Your task to perform on an android device: Check the weather Image 0: 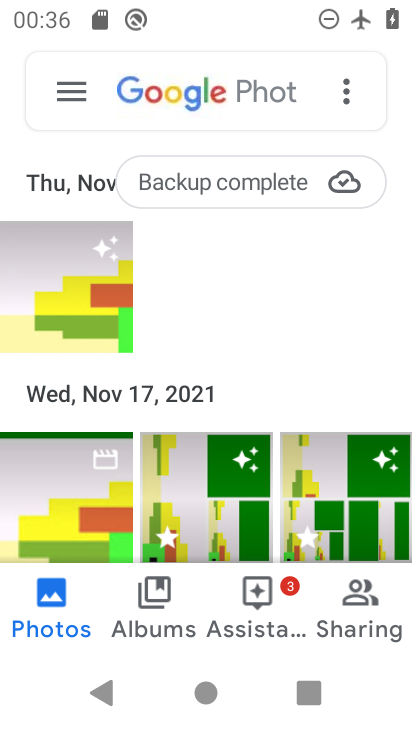
Step 0: press home button
Your task to perform on an android device: Check the weather Image 1: 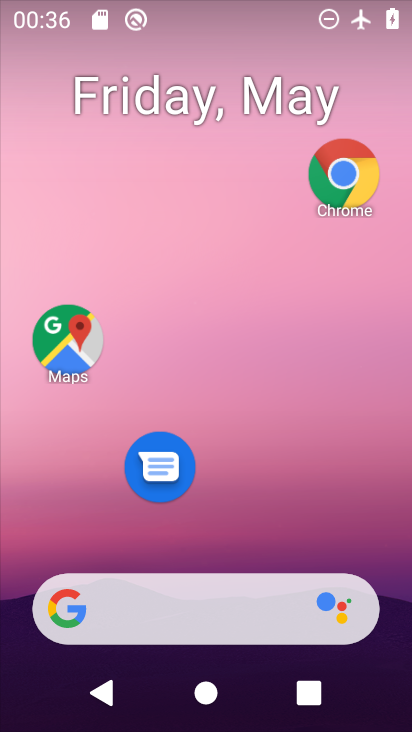
Step 1: click (339, 168)
Your task to perform on an android device: Check the weather Image 2: 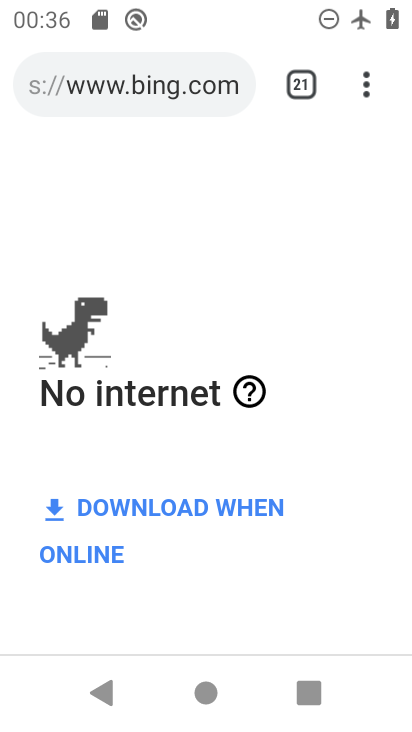
Step 2: click (338, 83)
Your task to perform on an android device: Check the weather Image 3: 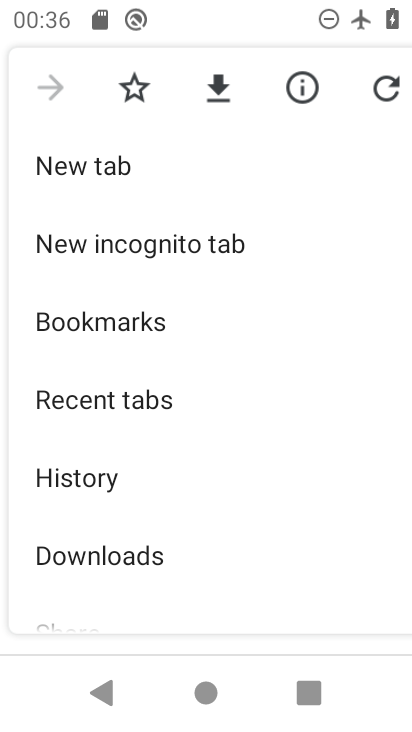
Step 3: click (98, 167)
Your task to perform on an android device: Check the weather Image 4: 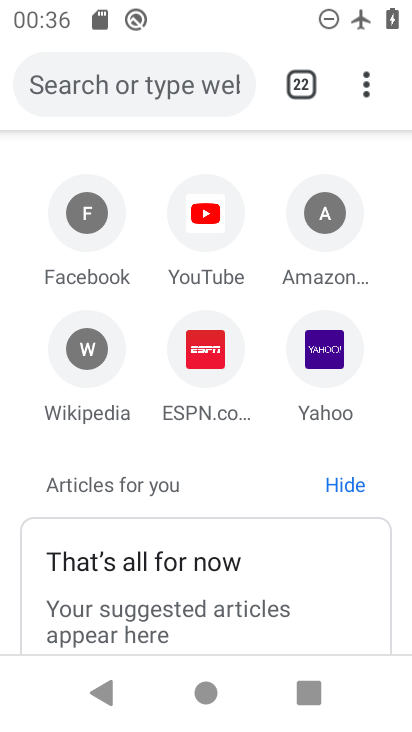
Step 4: click (168, 73)
Your task to perform on an android device: Check the weather Image 5: 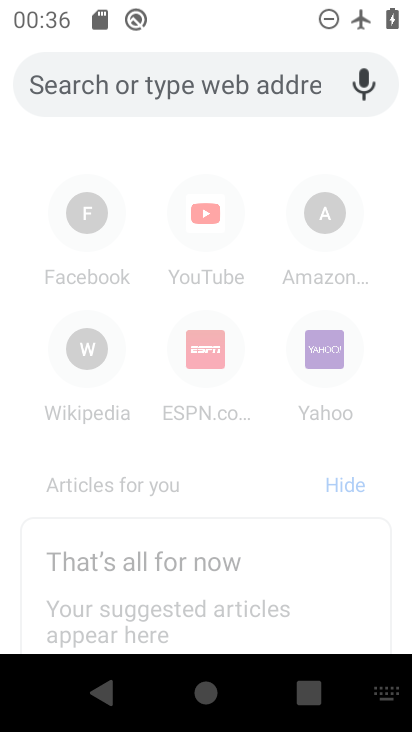
Step 5: type "Check the weather"
Your task to perform on an android device: Check the weather Image 6: 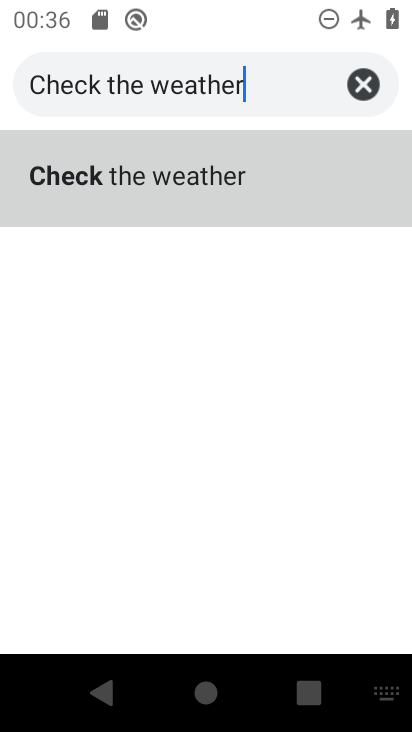
Step 6: click (260, 173)
Your task to perform on an android device: Check the weather Image 7: 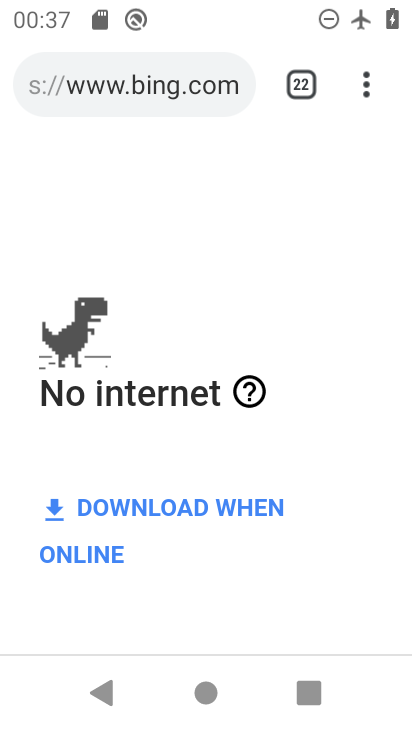
Step 7: task complete